Your task to perform on an android device: install app "Facebook Lite" Image 0: 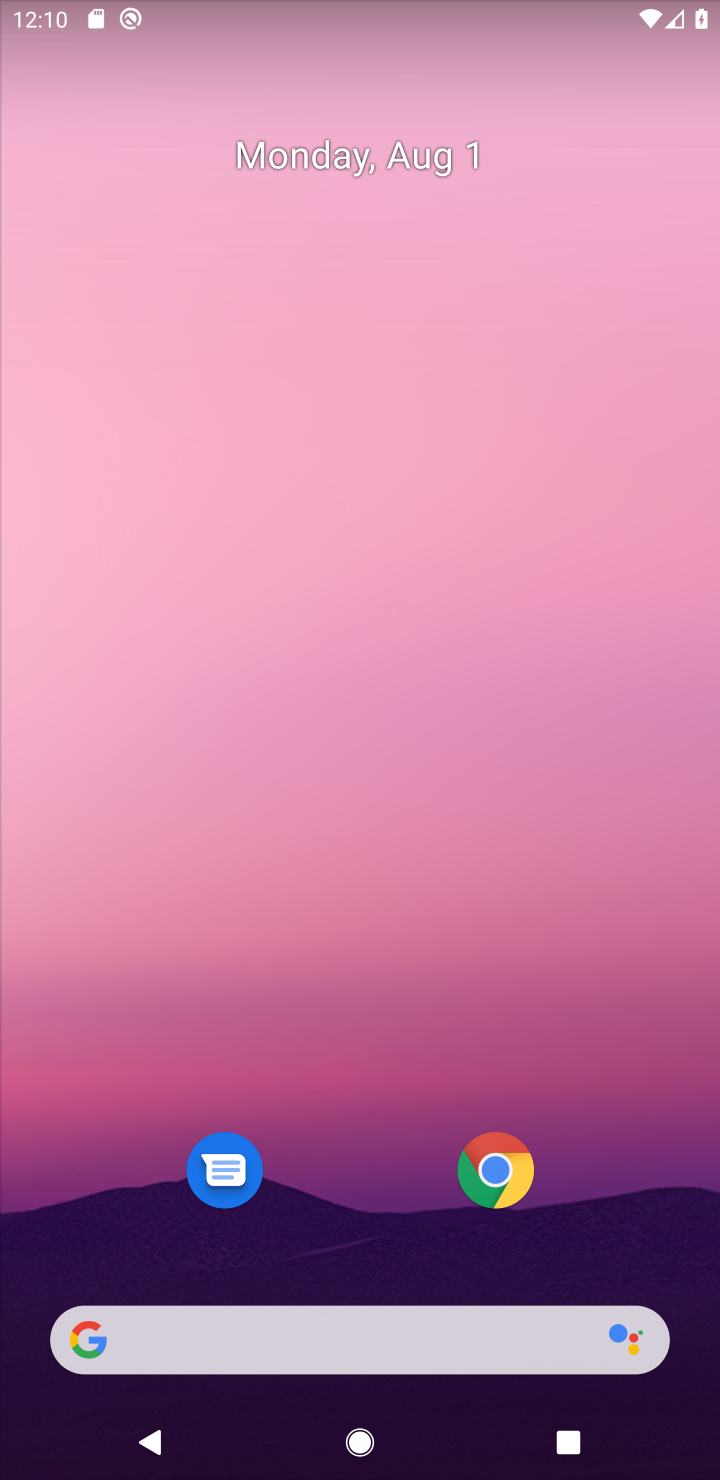
Step 0: drag from (600, 1238) to (270, 48)
Your task to perform on an android device: install app "Facebook Lite" Image 1: 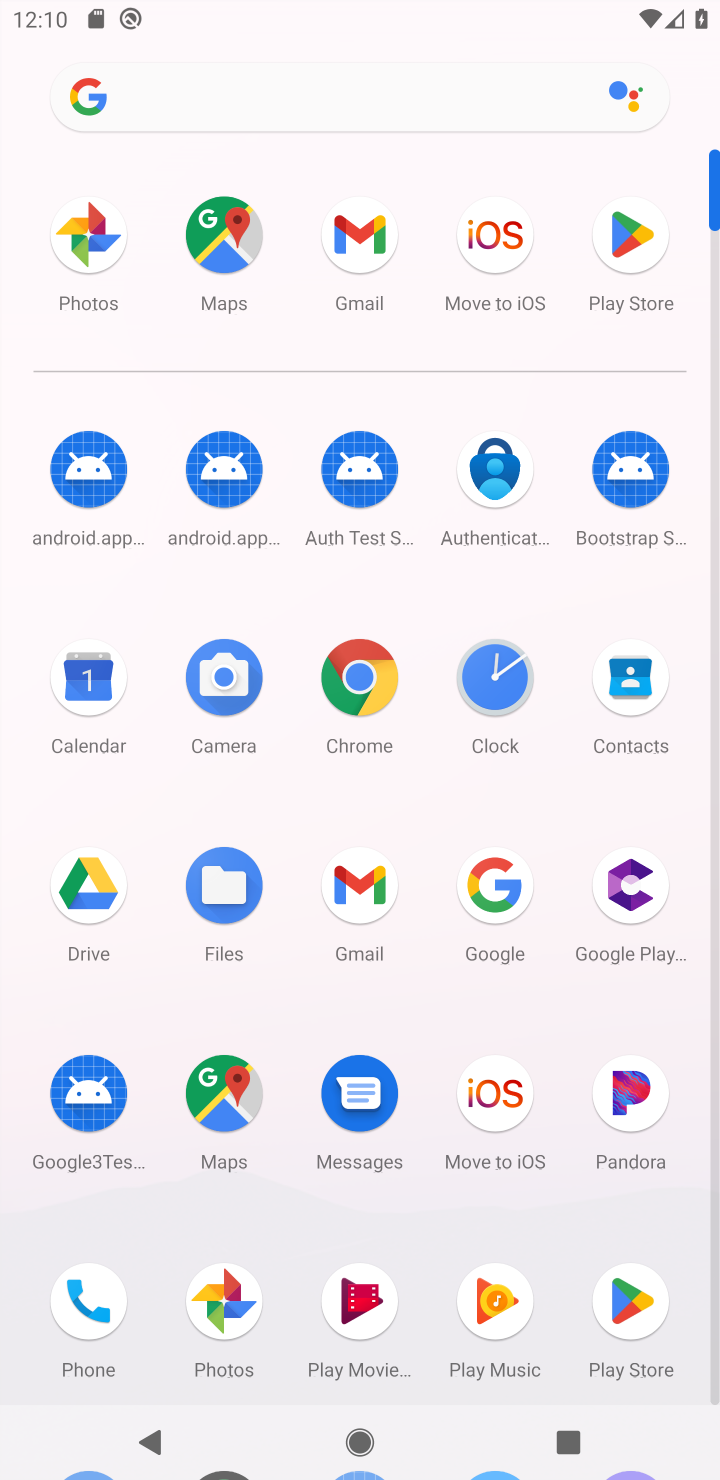
Step 1: click (625, 240)
Your task to perform on an android device: install app "Facebook Lite" Image 2: 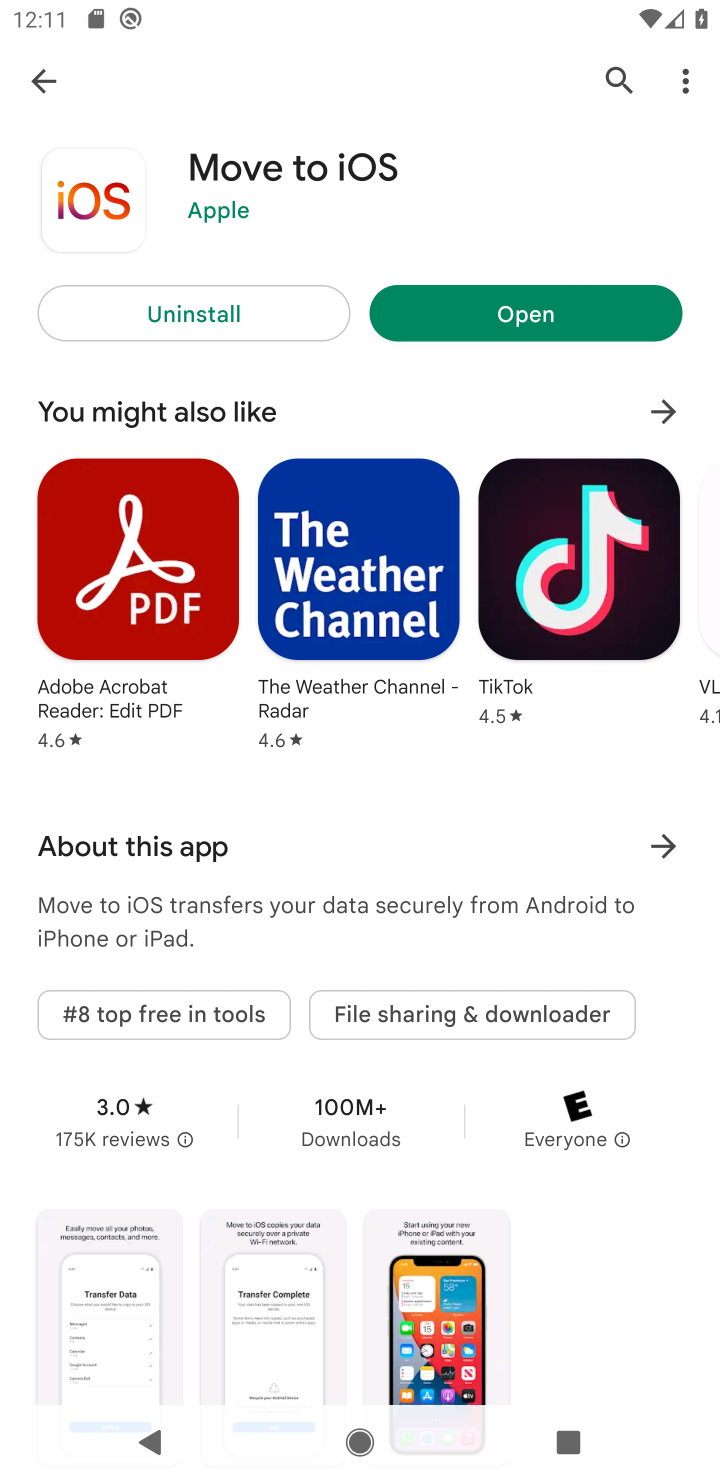
Step 2: press back button
Your task to perform on an android device: install app "Facebook Lite" Image 3: 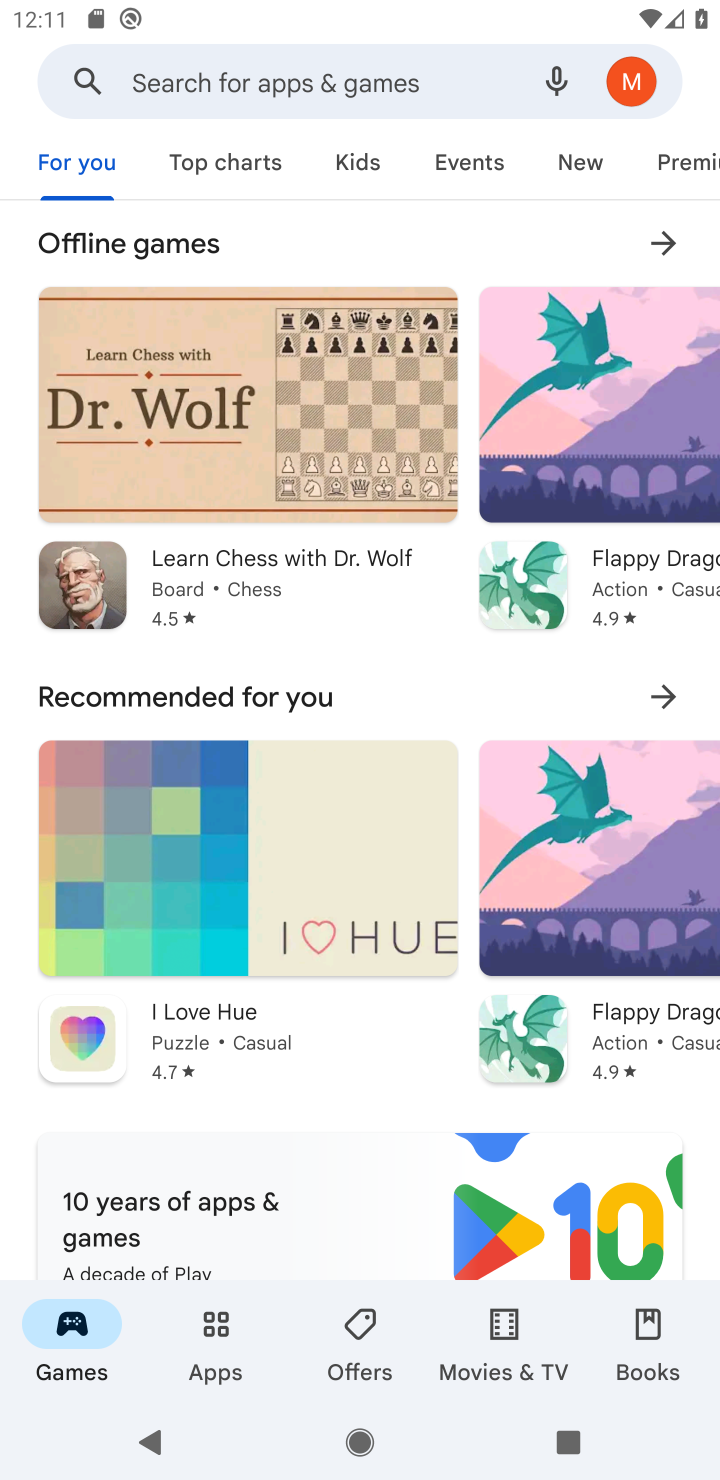
Step 3: click (241, 75)
Your task to perform on an android device: install app "Facebook Lite" Image 4: 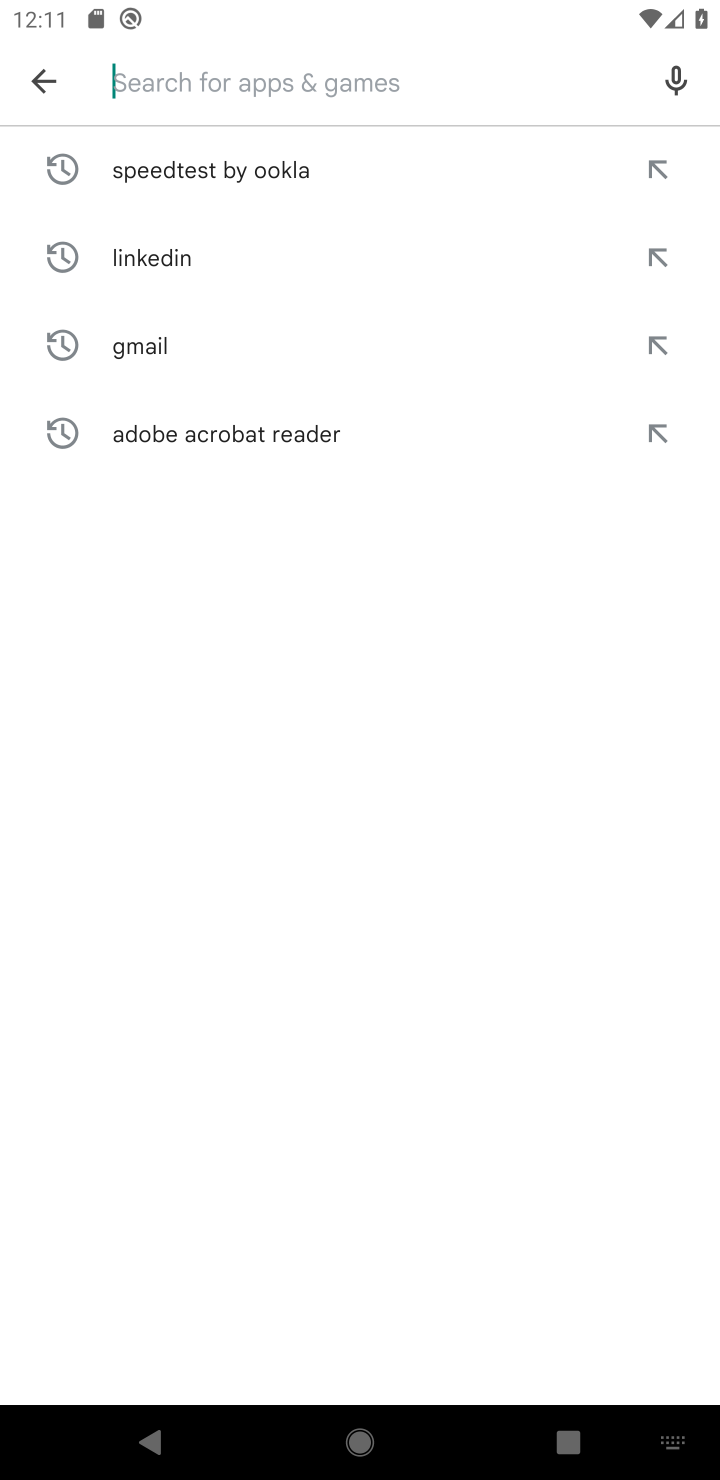
Step 4: type "Facebook Lite"
Your task to perform on an android device: install app "Facebook Lite" Image 5: 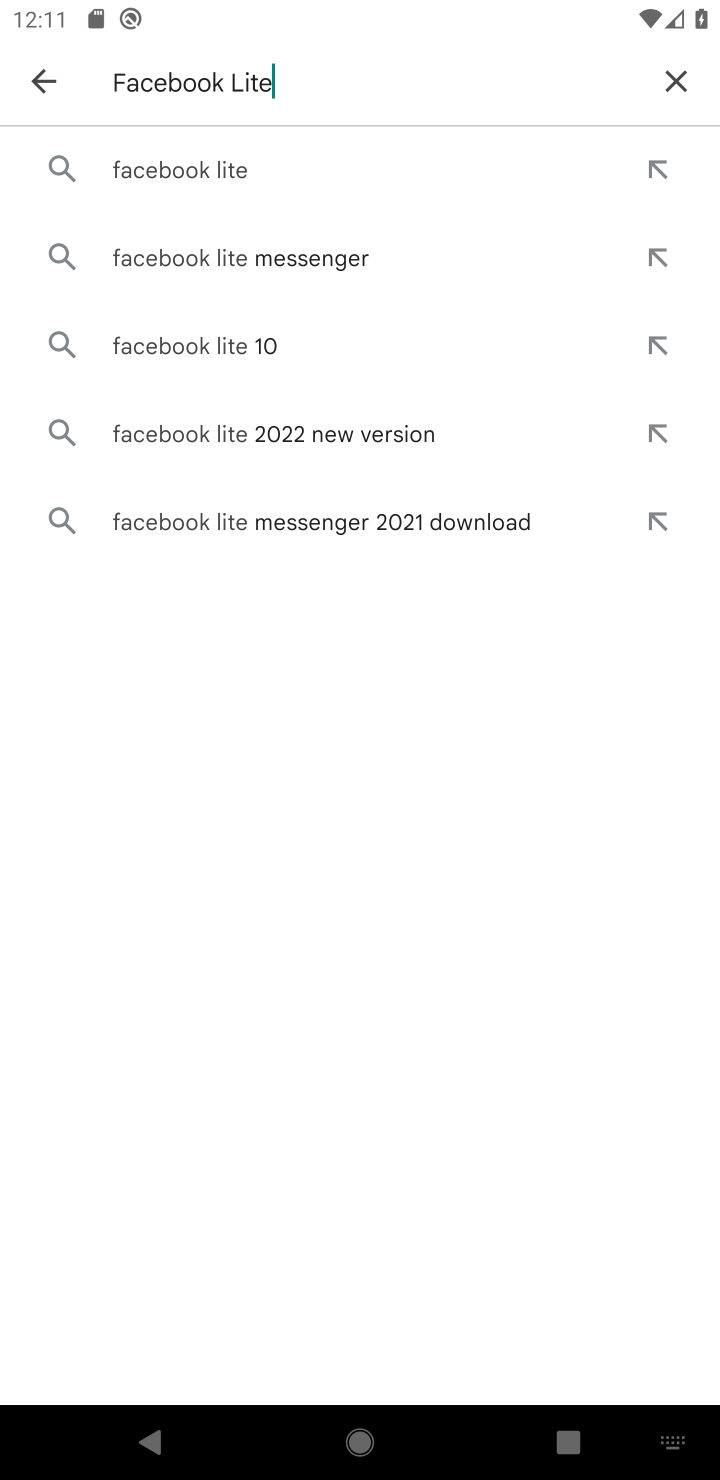
Step 5: click (203, 179)
Your task to perform on an android device: install app "Facebook Lite" Image 6: 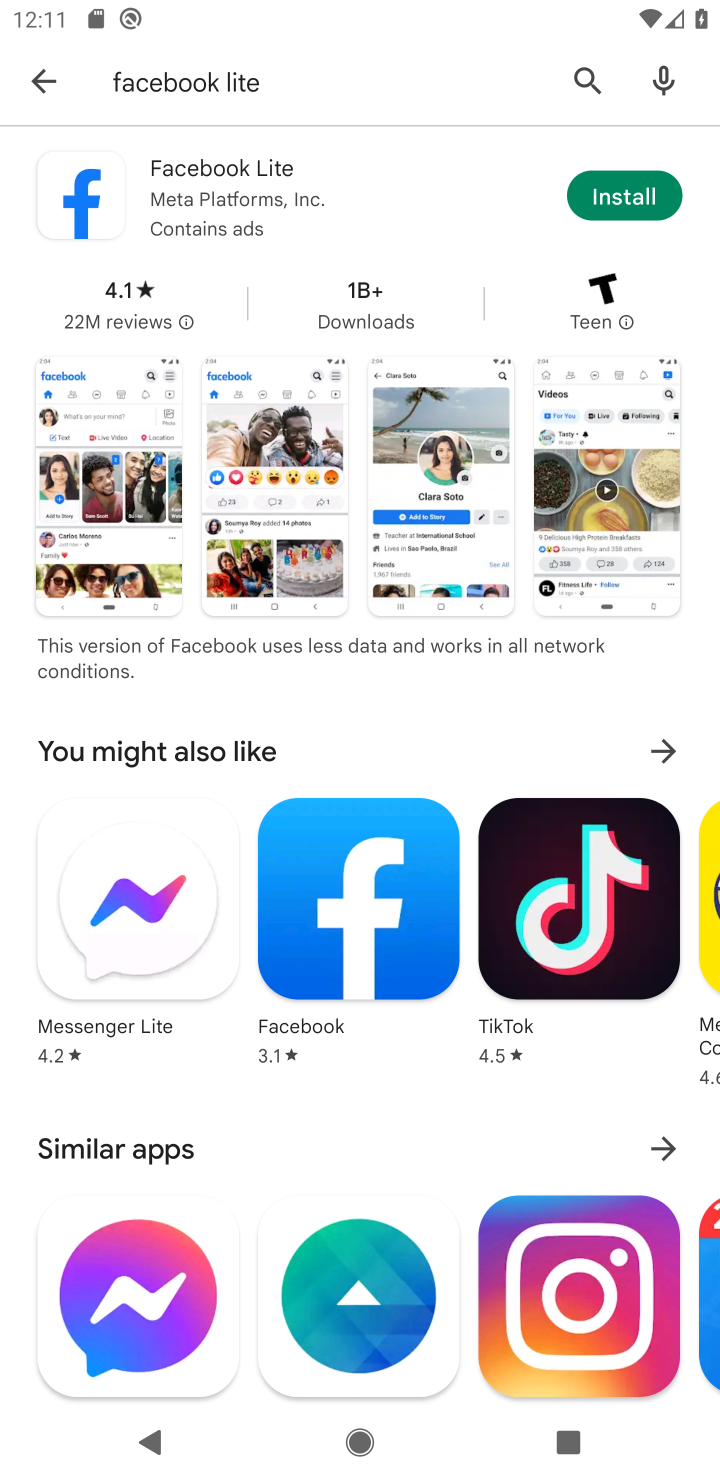
Step 6: click (629, 207)
Your task to perform on an android device: install app "Facebook Lite" Image 7: 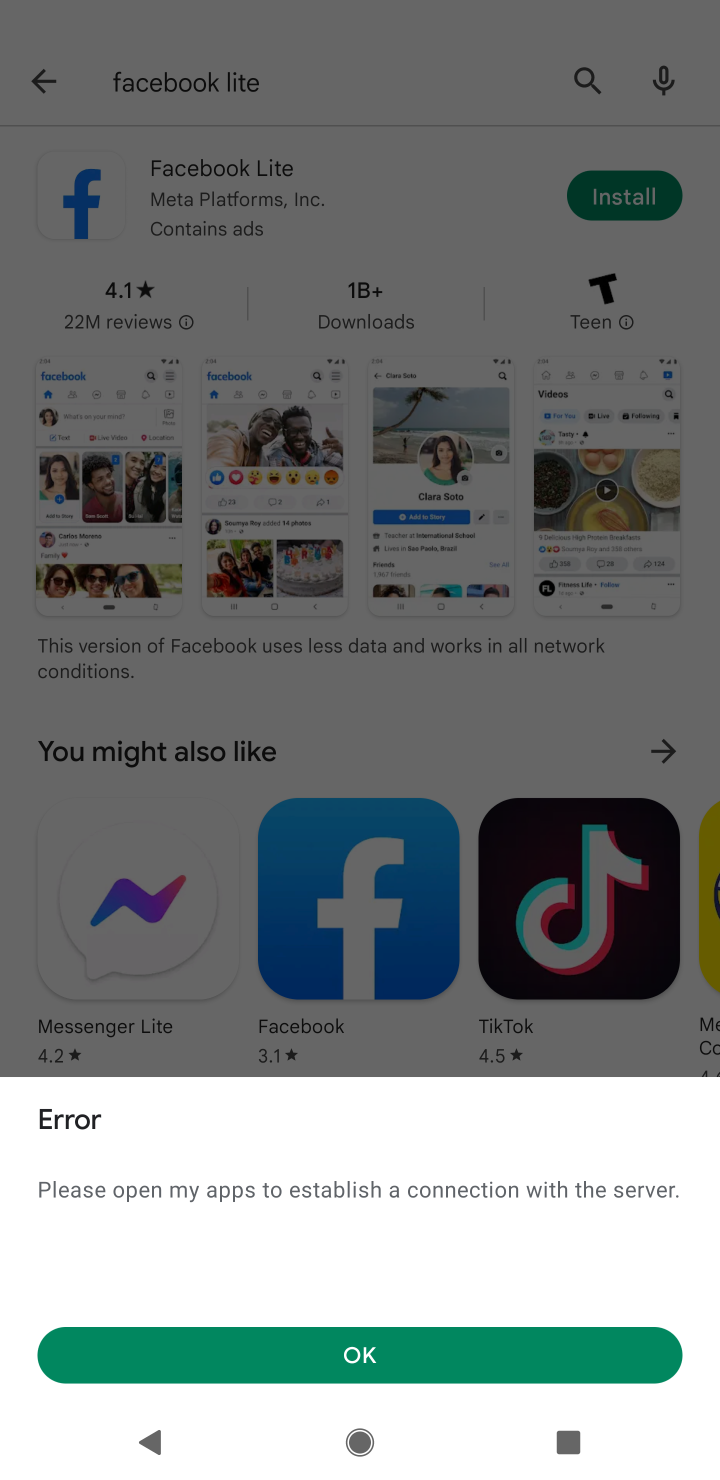
Step 7: task complete